Your task to perform on an android device: Open calendar and show me the fourth week of next month Image 0: 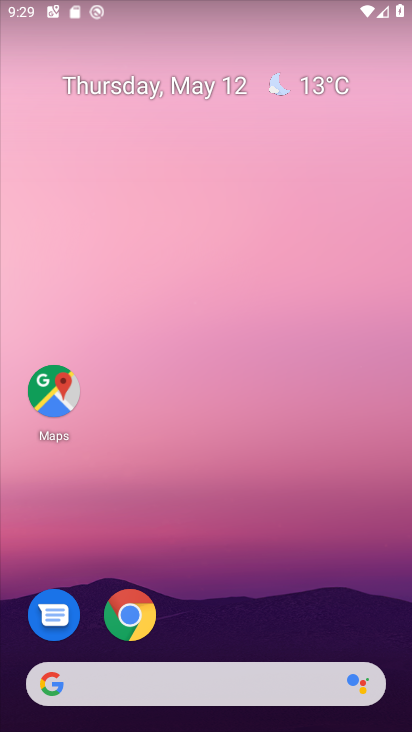
Step 0: drag from (251, 553) to (212, 92)
Your task to perform on an android device: Open calendar and show me the fourth week of next month Image 1: 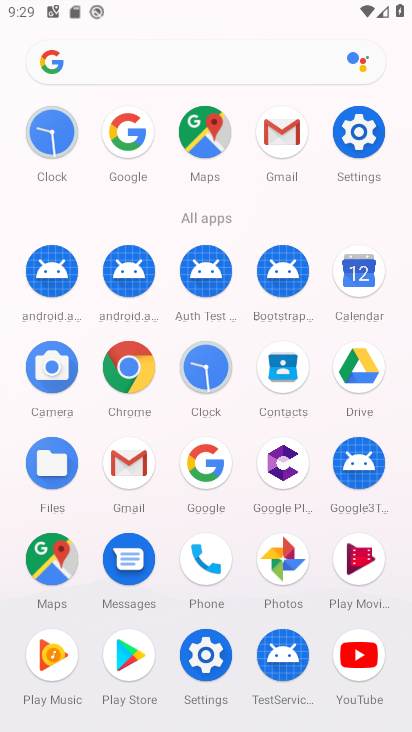
Step 1: click (348, 281)
Your task to perform on an android device: Open calendar and show me the fourth week of next month Image 2: 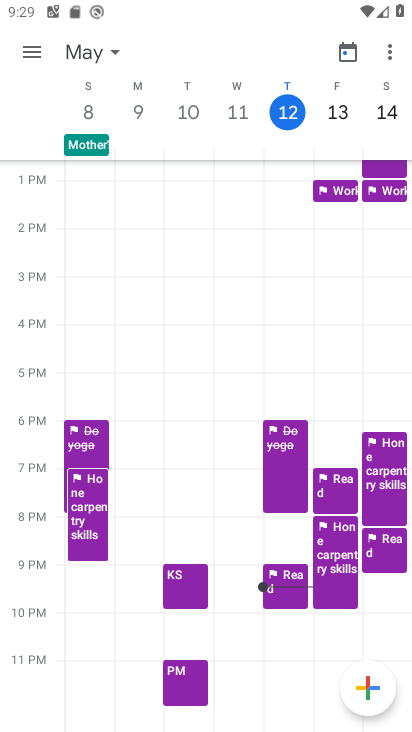
Step 2: click (111, 49)
Your task to perform on an android device: Open calendar and show me the fourth week of next month Image 3: 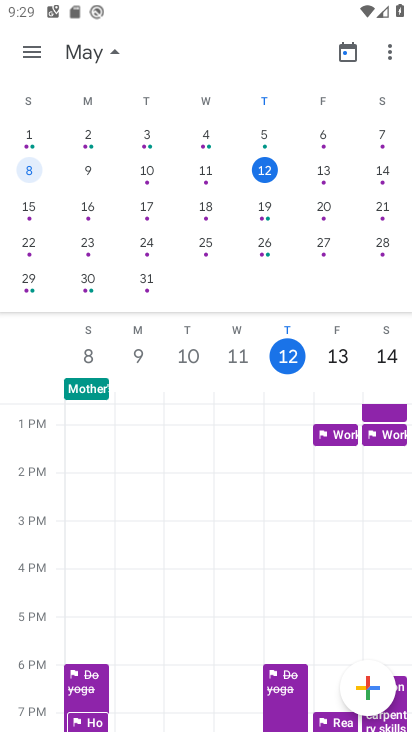
Step 3: drag from (336, 226) to (45, 146)
Your task to perform on an android device: Open calendar and show me the fourth week of next month Image 4: 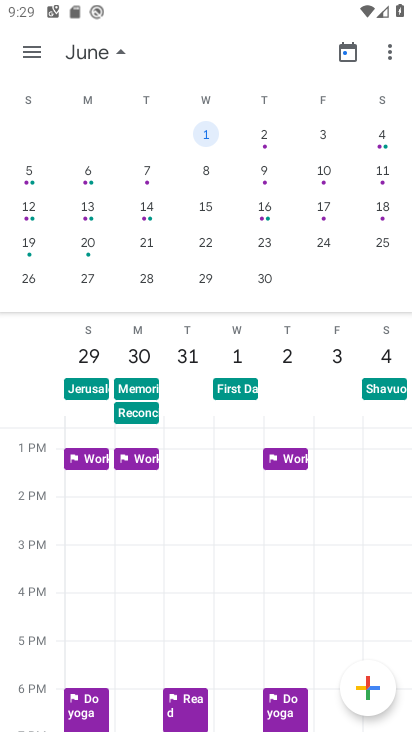
Step 4: click (204, 247)
Your task to perform on an android device: Open calendar and show me the fourth week of next month Image 5: 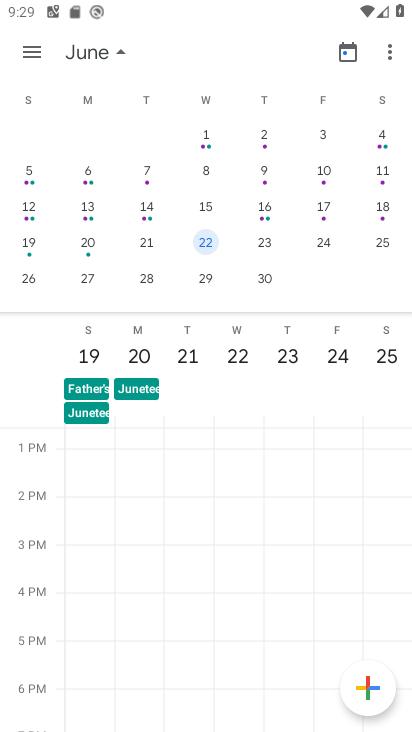
Step 5: task complete